Your task to perform on an android device: add a label to a message in the gmail app Image 0: 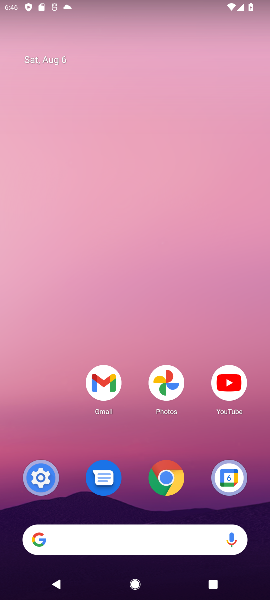
Step 0: press home button
Your task to perform on an android device: add a label to a message in the gmail app Image 1: 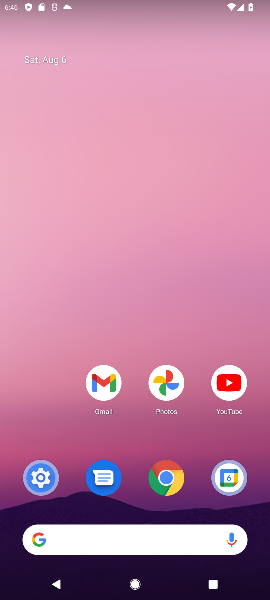
Step 1: click (102, 373)
Your task to perform on an android device: add a label to a message in the gmail app Image 2: 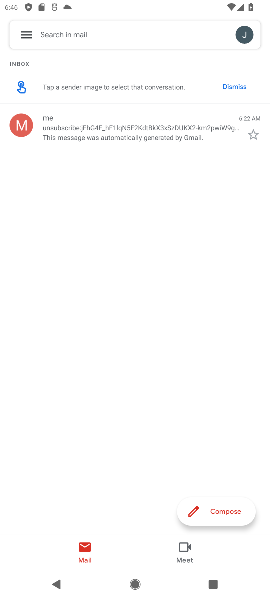
Step 2: click (94, 161)
Your task to perform on an android device: add a label to a message in the gmail app Image 3: 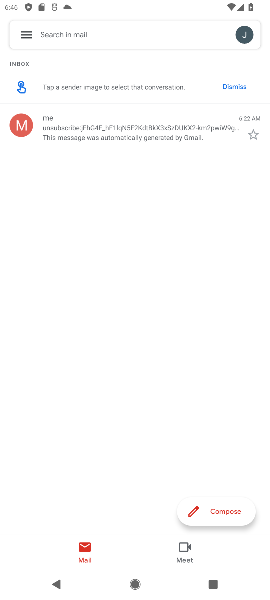
Step 3: click (94, 161)
Your task to perform on an android device: add a label to a message in the gmail app Image 4: 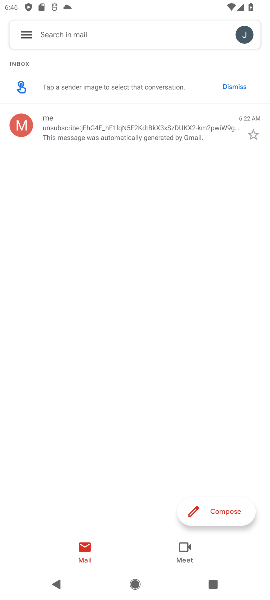
Step 4: click (89, 135)
Your task to perform on an android device: add a label to a message in the gmail app Image 5: 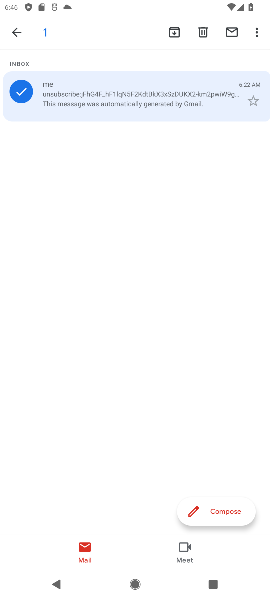
Step 5: click (255, 26)
Your task to perform on an android device: add a label to a message in the gmail app Image 6: 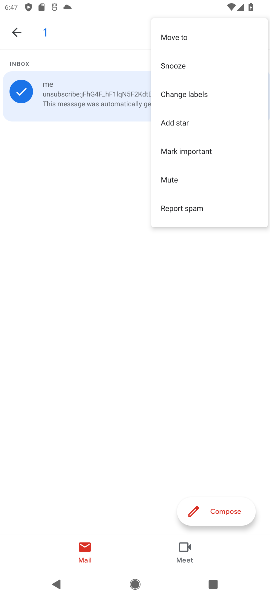
Step 6: click (179, 87)
Your task to perform on an android device: add a label to a message in the gmail app Image 7: 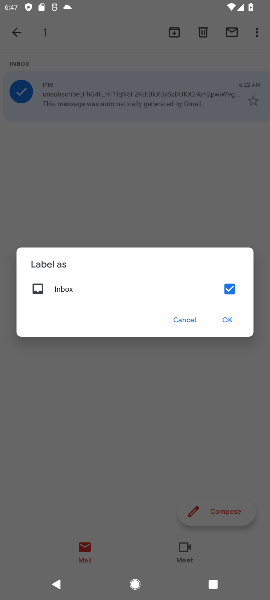
Step 7: click (226, 321)
Your task to perform on an android device: add a label to a message in the gmail app Image 8: 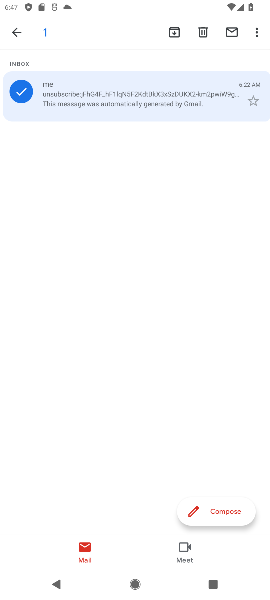
Step 8: task complete